Your task to perform on an android device: Open Google Chrome and click the shortcut for Amazon.com Image 0: 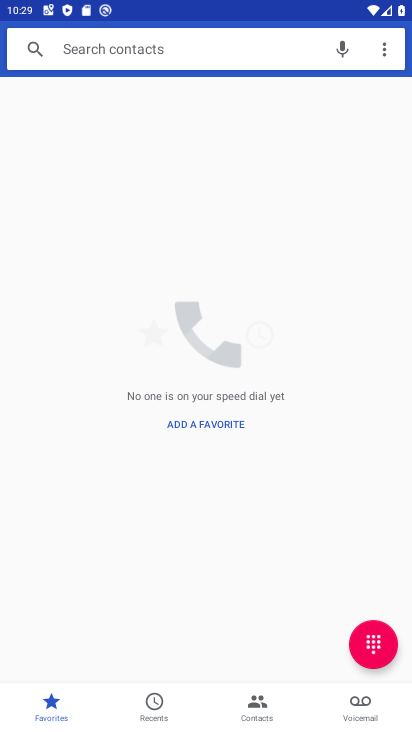
Step 0: press home button
Your task to perform on an android device: Open Google Chrome and click the shortcut for Amazon.com Image 1: 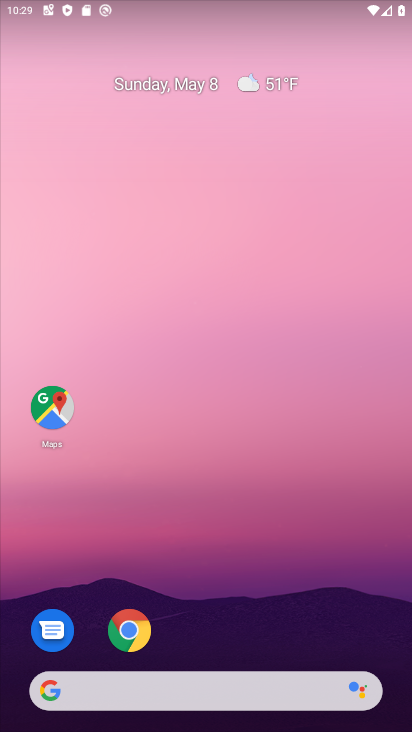
Step 1: drag from (372, 631) to (81, 205)
Your task to perform on an android device: Open Google Chrome and click the shortcut for Amazon.com Image 2: 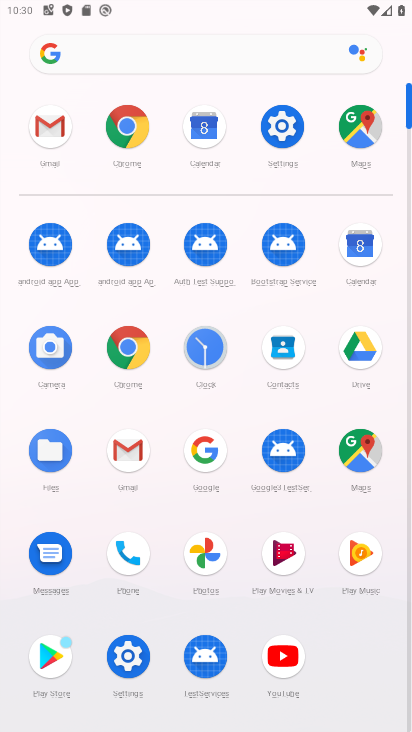
Step 2: click (131, 128)
Your task to perform on an android device: Open Google Chrome and click the shortcut for Amazon.com Image 3: 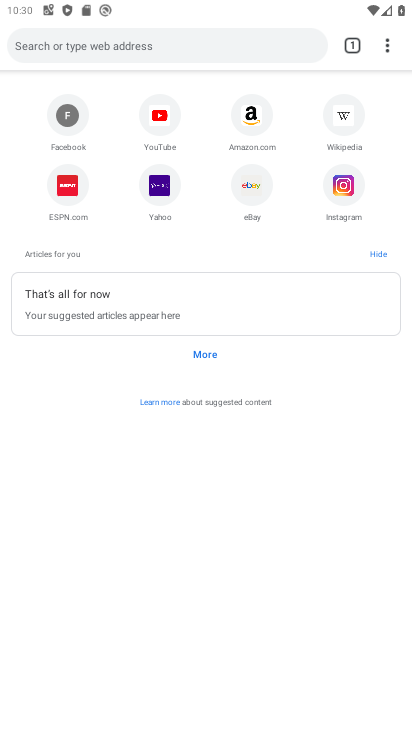
Step 3: click (257, 110)
Your task to perform on an android device: Open Google Chrome and click the shortcut for Amazon.com Image 4: 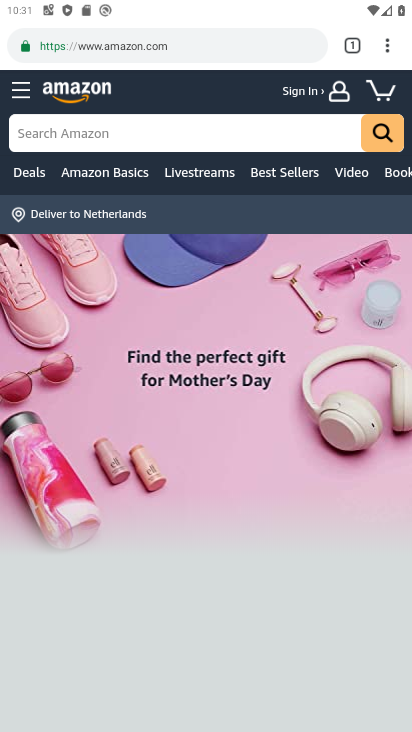
Step 4: task complete